Your task to perform on an android device: What's the weather today? Image 0: 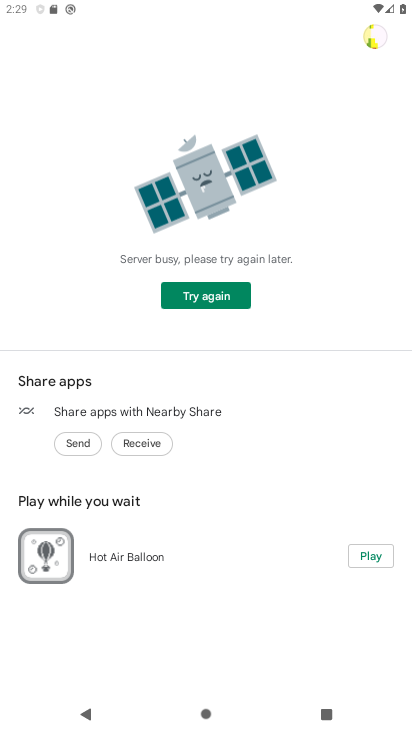
Step 0: press home button
Your task to perform on an android device: What's the weather today? Image 1: 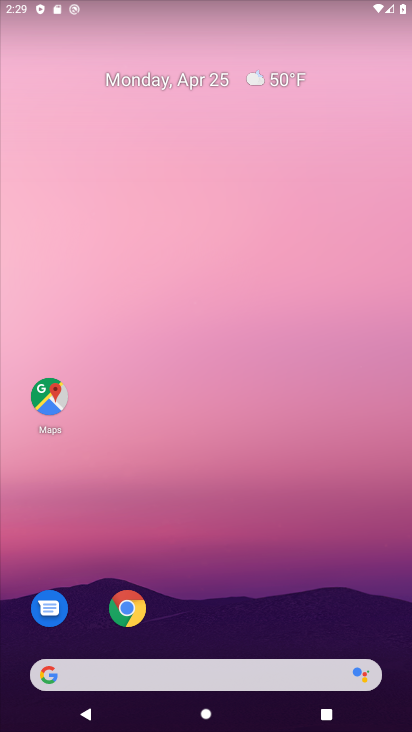
Step 1: drag from (179, 627) to (228, 155)
Your task to perform on an android device: What's the weather today? Image 2: 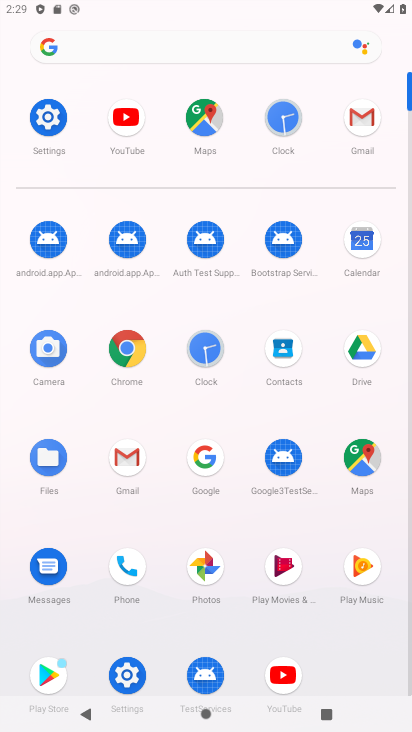
Step 2: click (202, 470)
Your task to perform on an android device: What's the weather today? Image 3: 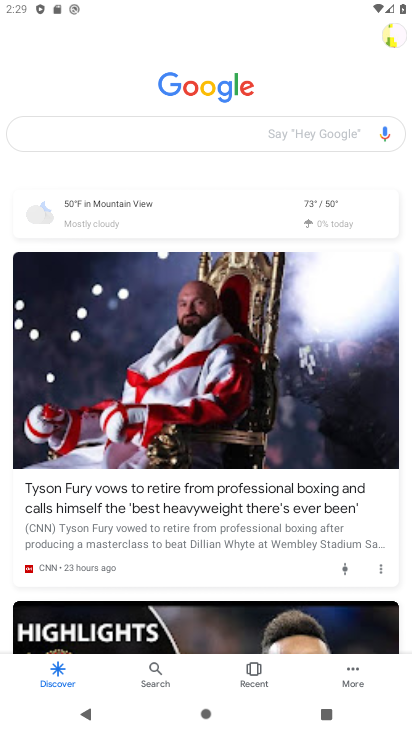
Step 3: click (97, 197)
Your task to perform on an android device: What's the weather today? Image 4: 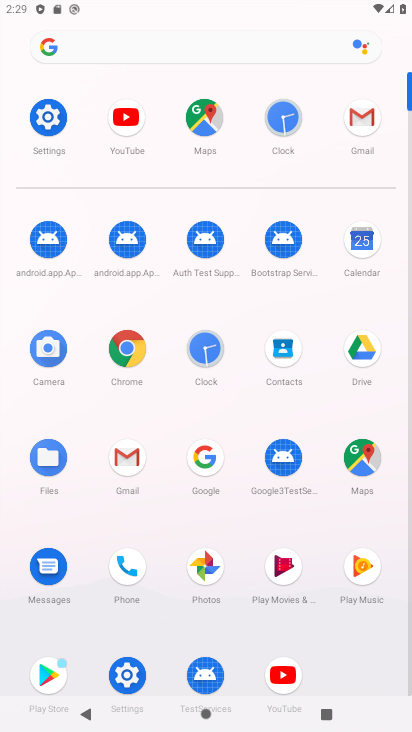
Step 4: click (190, 455)
Your task to perform on an android device: What's the weather today? Image 5: 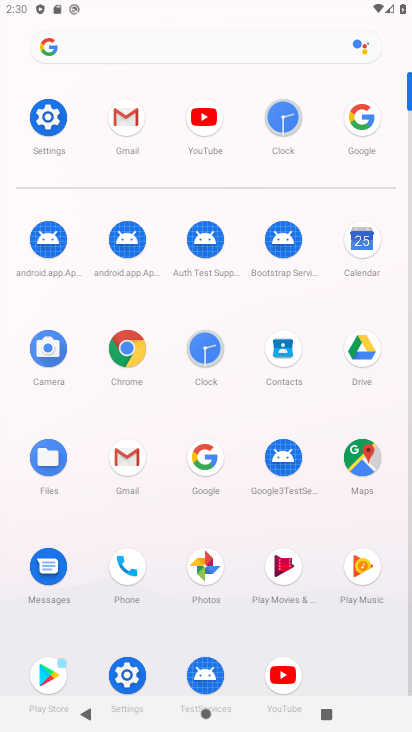
Step 5: click (206, 468)
Your task to perform on an android device: What's the weather today? Image 6: 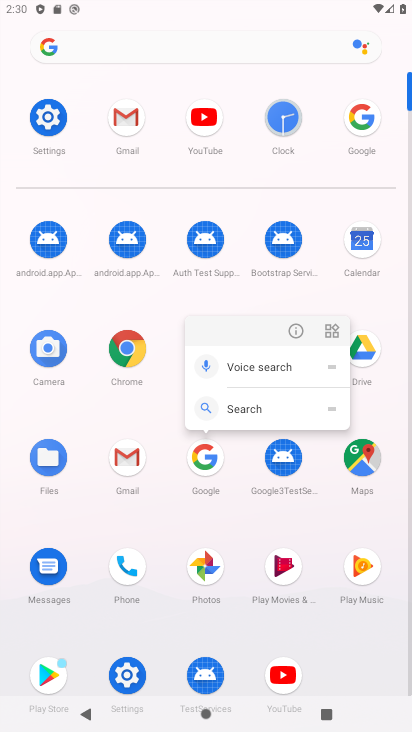
Step 6: click (206, 468)
Your task to perform on an android device: What's the weather today? Image 7: 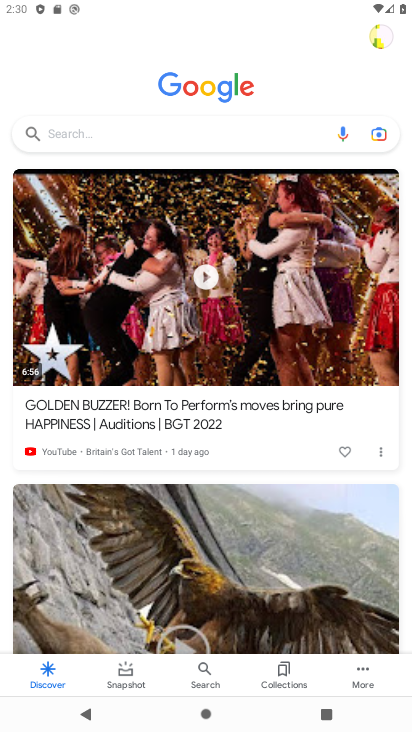
Step 7: click (106, 127)
Your task to perform on an android device: What's the weather today? Image 8: 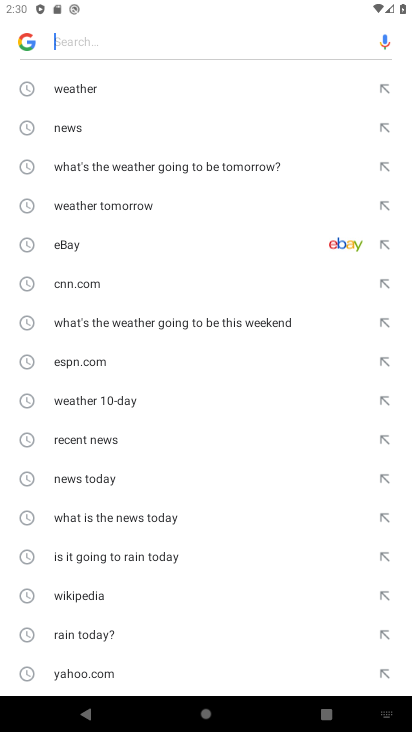
Step 8: click (66, 91)
Your task to perform on an android device: What's the weather today? Image 9: 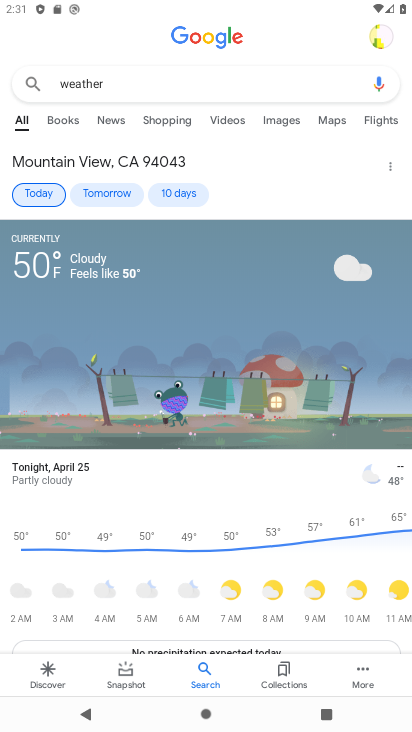
Step 9: task complete